Your task to perform on an android device: turn on the 24-hour format for clock Image 0: 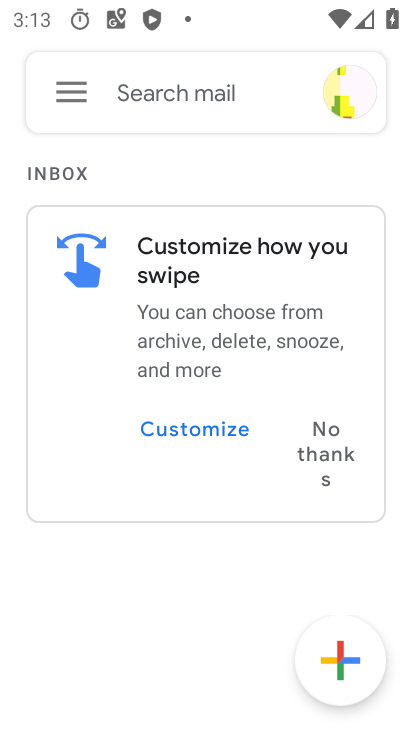
Step 0: press back button
Your task to perform on an android device: turn on the 24-hour format for clock Image 1: 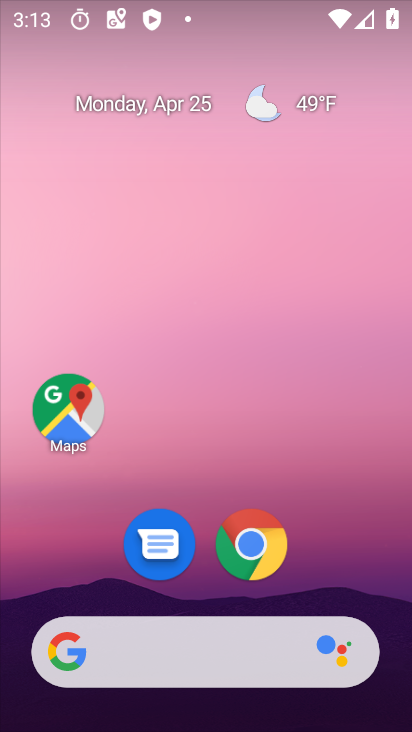
Step 1: drag from (199, 479) to (282, 2)
Your task to perform on an android device: turn on the 24-hour format for clock Image 2: 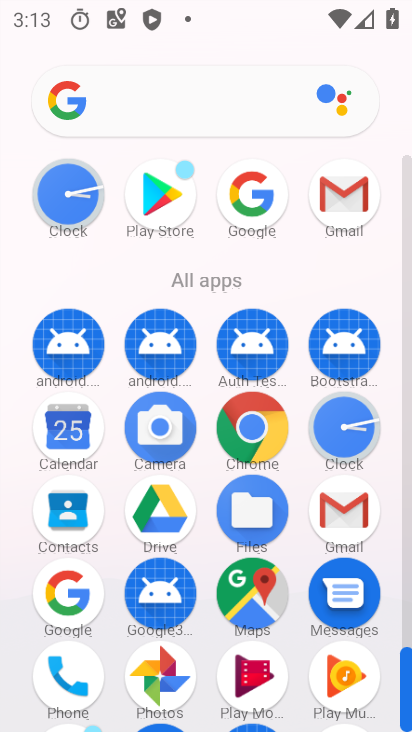
Step 2: click (65, 197)
Your task to perform on an android device: turn on the 24-hour format for clock Image 3: 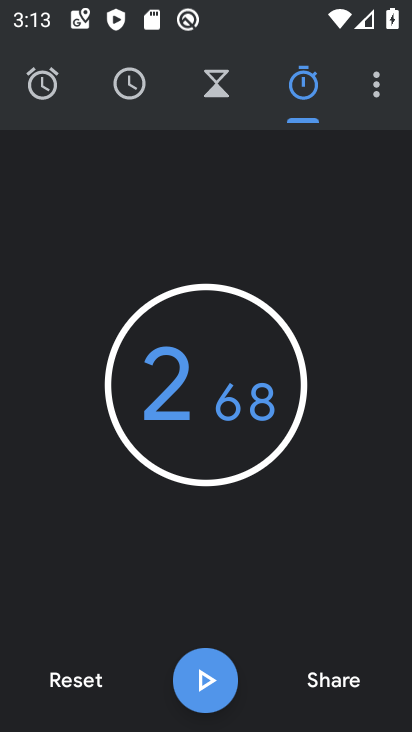
Step 3: click (374, 86)
Your task to perform on an android device: turn on the 24-hour format for clock Image 4: 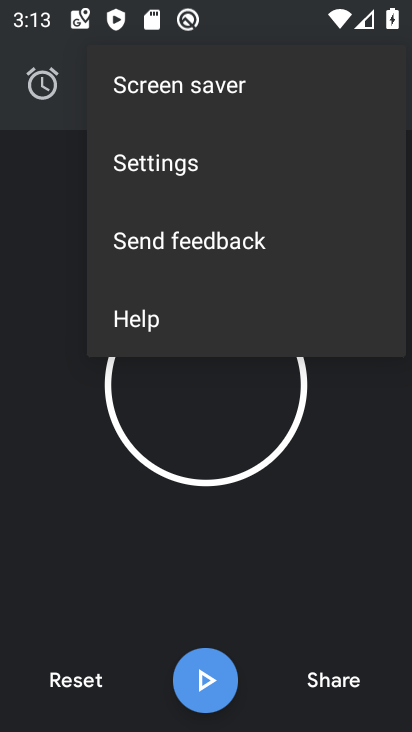
Step 4: click (178, 165)
Your task to perform on an android device: turn on the 24-hour format for clock Image 5: 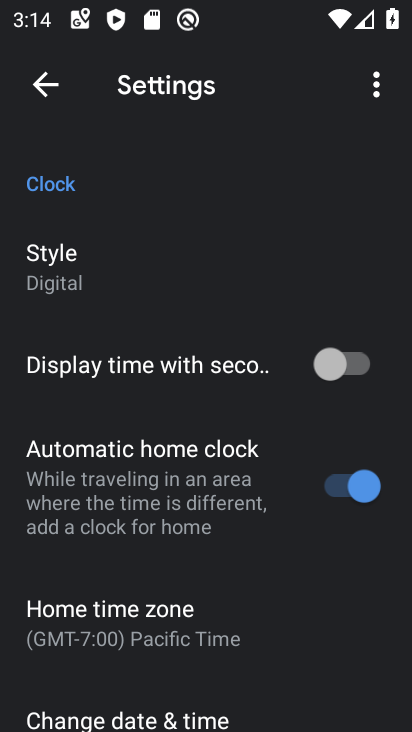
Step 5: drag from (105, 586) to (179, 353)
Your task to perform on an android device: turn on the 24-hour format for clock Image 6: 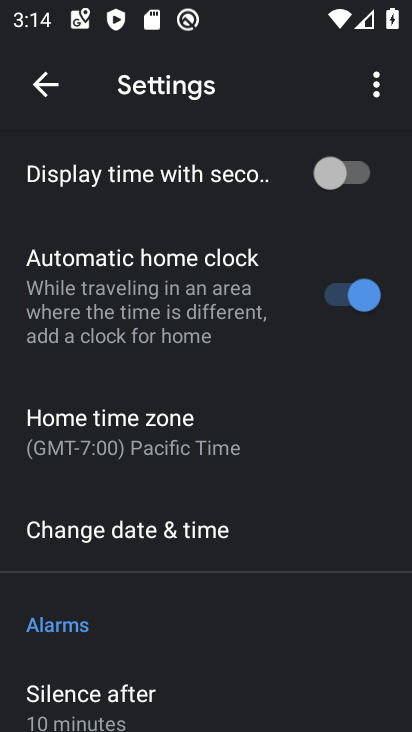
Step 6: click (121, 531)
Your task to perform on an android device: turn on the 24-hour format for clock Image 7: 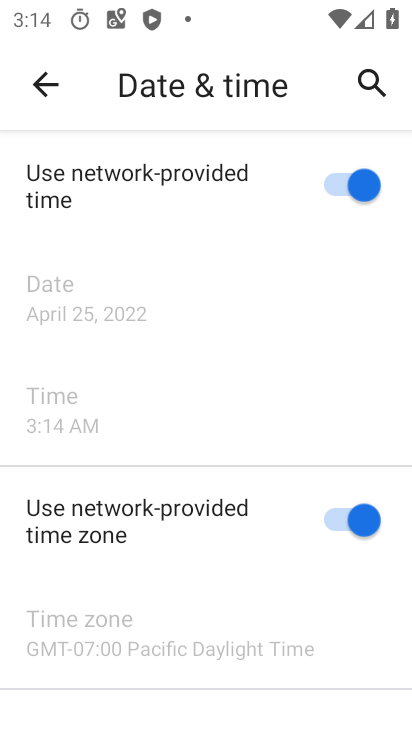
Step 7: drag from (215, 602) to (276, 332)
Your task to perform on an android device: turn on the 24-hour format for clock Image 8: 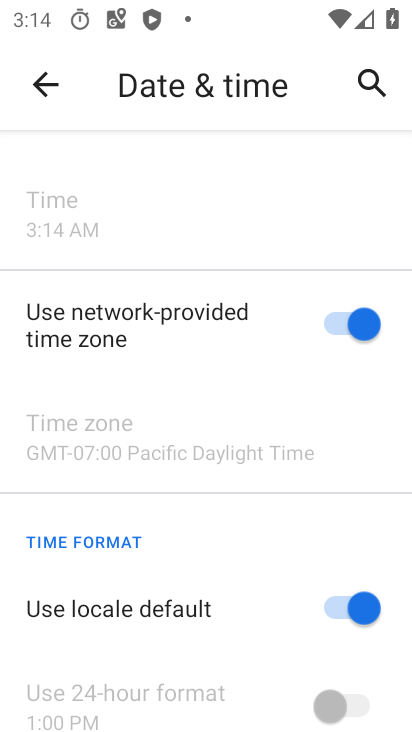
Step 8: drag from (193, 586) to (251, 433)
Your task to perform on an android device: turn on the 24-hour format for clock Image 9: 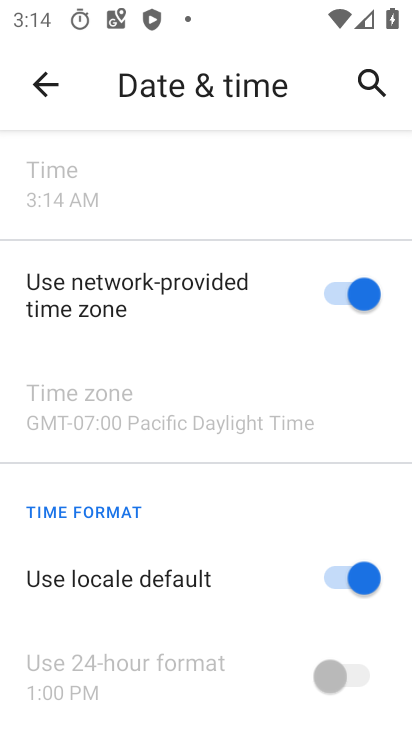
Step 9: click (367, 586)
Your task to perform on an android device: turn on the 24-hour format for clock Image 10: 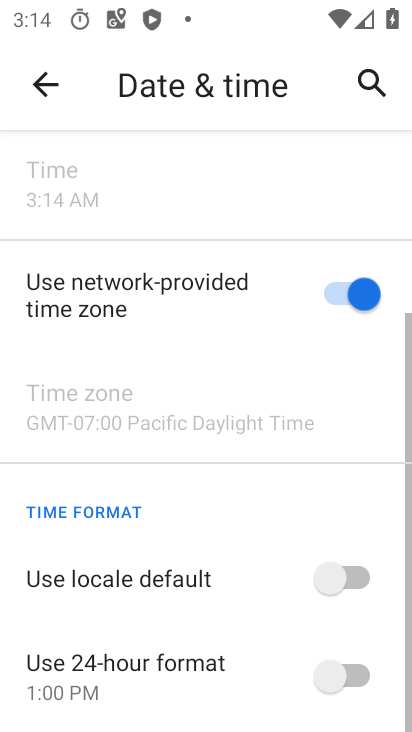
Step 10: click (332, 682)
Your task to perform on an android device: turn on the 24-hour format for clock Image 11: 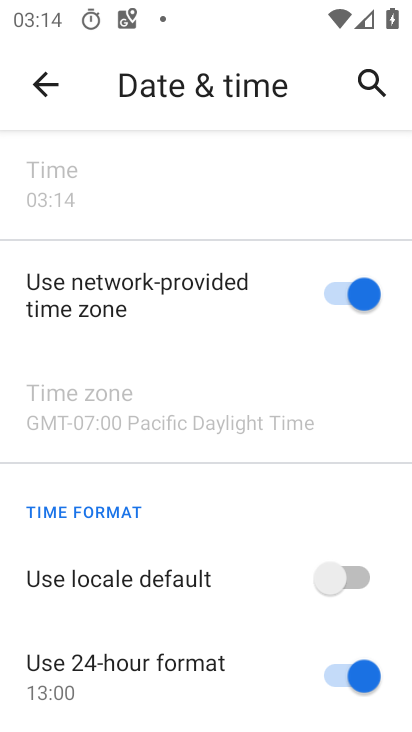
Step 11: task complete